Your task to perform on an android device: Go to Reddit.com Image 0: 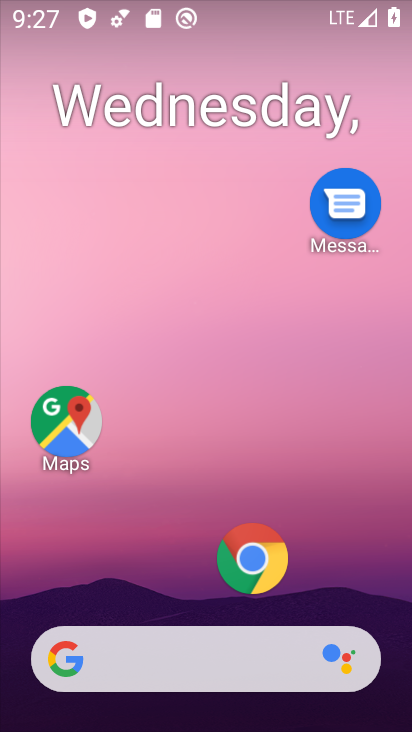
Step 0: click (246, 578)
Your task to perform on an android device: Go to Reddit.com Image 1: 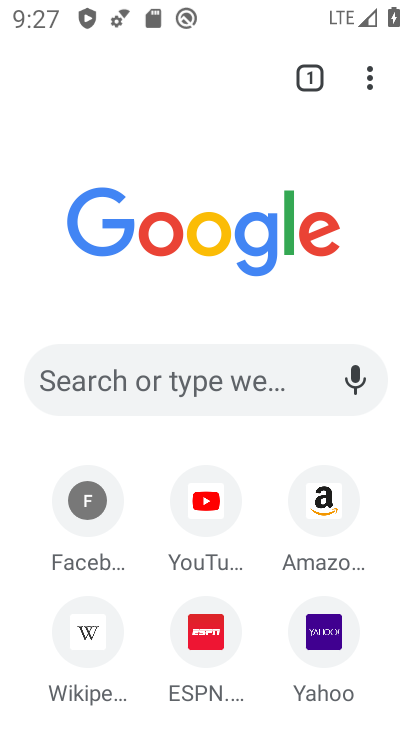
Step 1: click (192, 403)
Your task to perform on an android device: Go to Reddit.com Image 2: 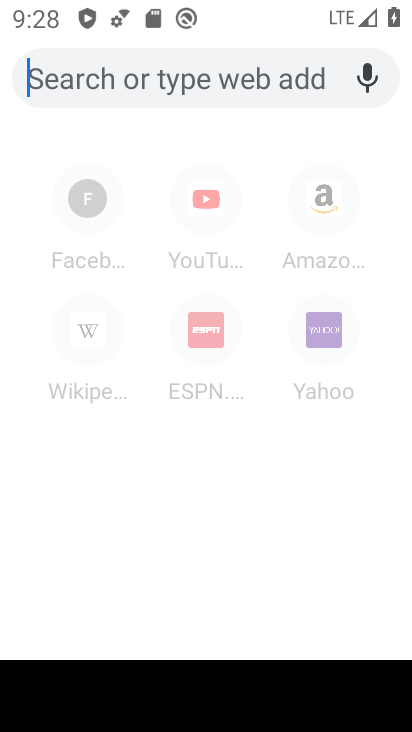
Step 2: type "reddit.com"
Your task to perform on an android device: Go to Reddit.com Image 3: 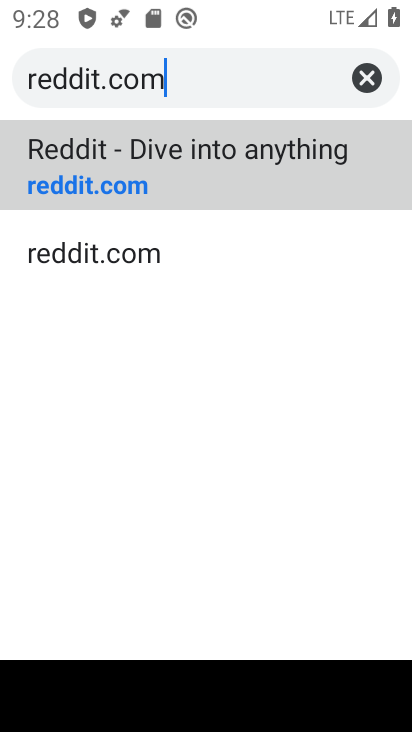
Step 3: click (146, 154)
Your task to perform on an android device: Go to Reddit.com Image 4: 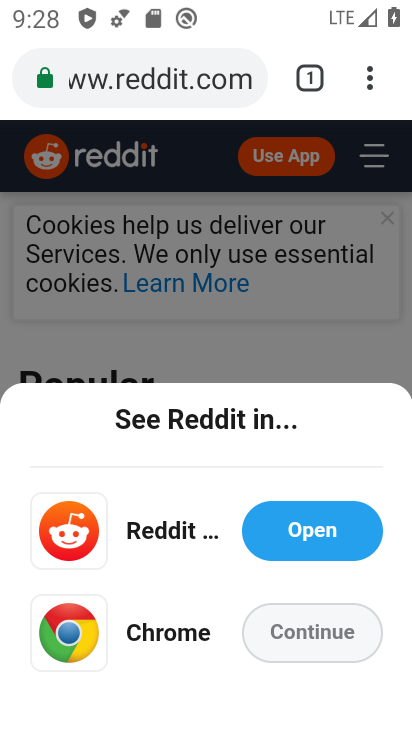
Step 4: task complete